Your task to perform on an android device: Go to display settings Image 0: 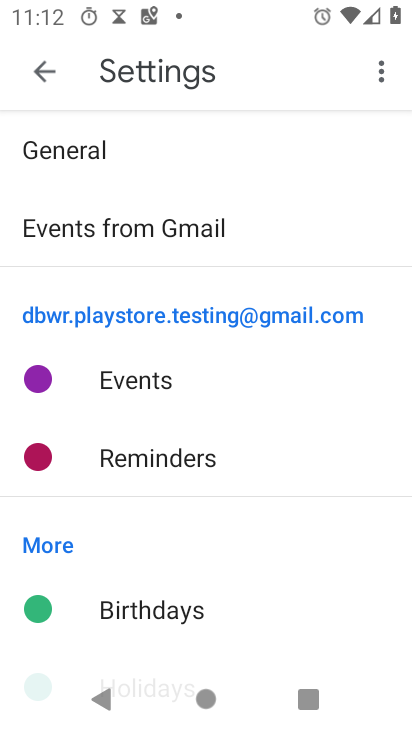
Step 0: press home button
Your task to perform on an android device: Go to display settings Image 1: 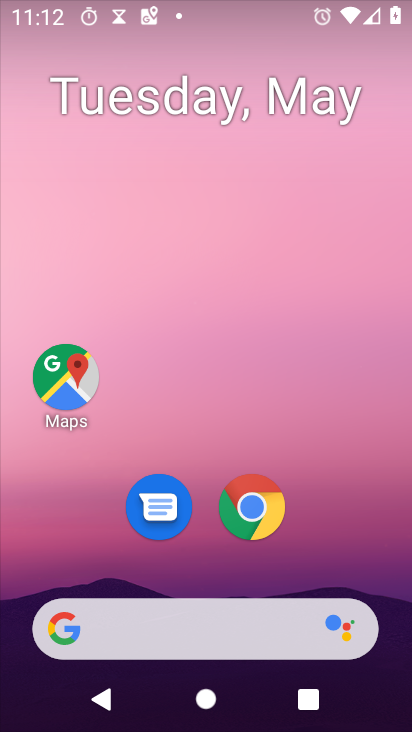
Step 1: drag from (48, 562) to (298, 231)
Your task to perform on an android device: Go to display settings Image 2: 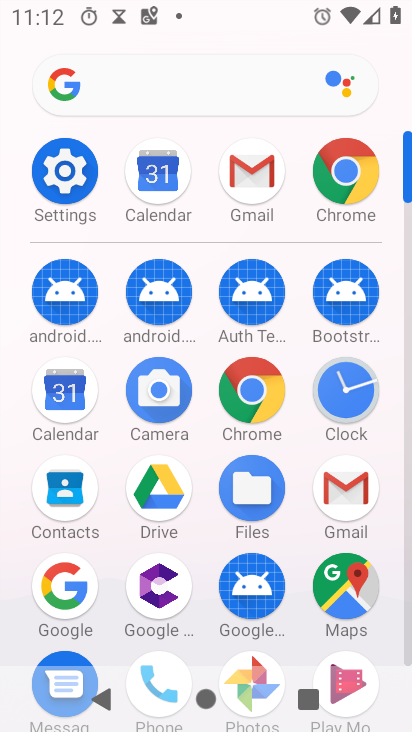
Step 2: click (59, 170)
Your task to perform on an android device: Go to display settings Image 3: 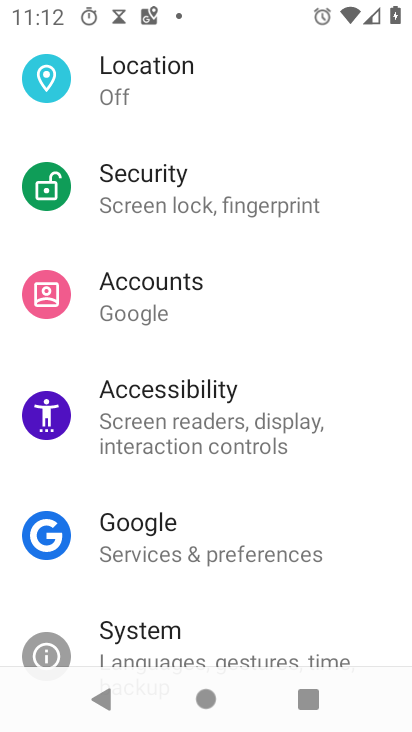
Step 3: drag from (200, 128) to (30, 543)
Your task to perform on an android device: Go to display settings Image 4: 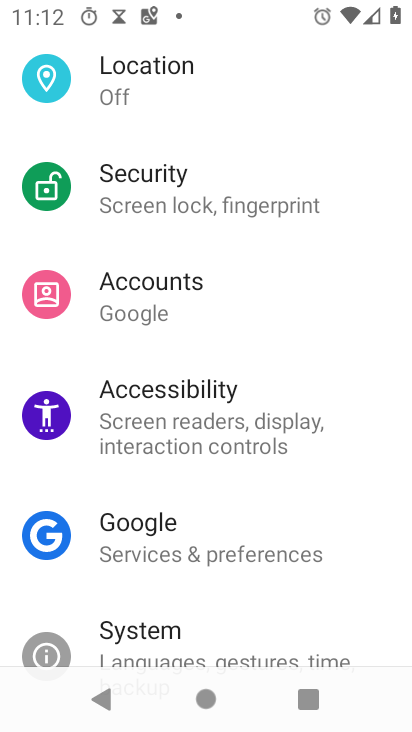
Step 4: drag from (234, 245) to (289, 158)
Your task to perform on an android device: Go to display settings Image 5: 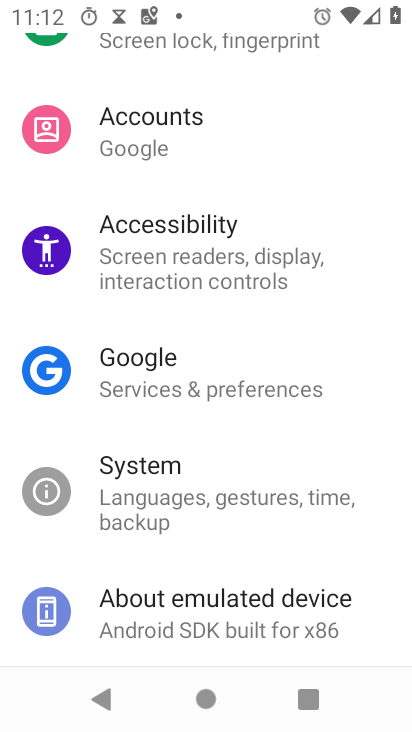
Step 5: drag from (130, 186) to (406, 123)
Your task to perform on an android device: Go to display settings Image 6: 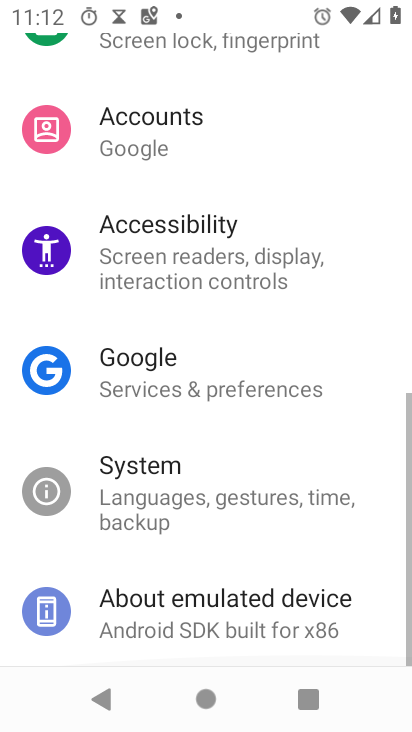
Step 6: drag from (314, 195) to (263, 570)
Your task to perform on an android device: Go to display settings Image 7: 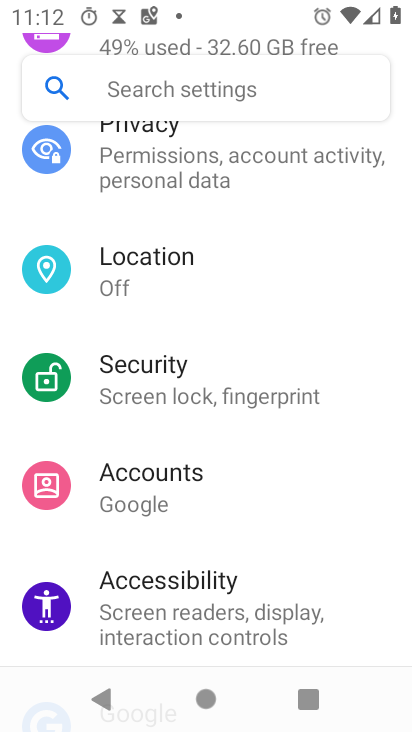
Step 7: drag from (319, 171) to (197, 581)
Your task to perform on an android device: Go to display settings Image 8: 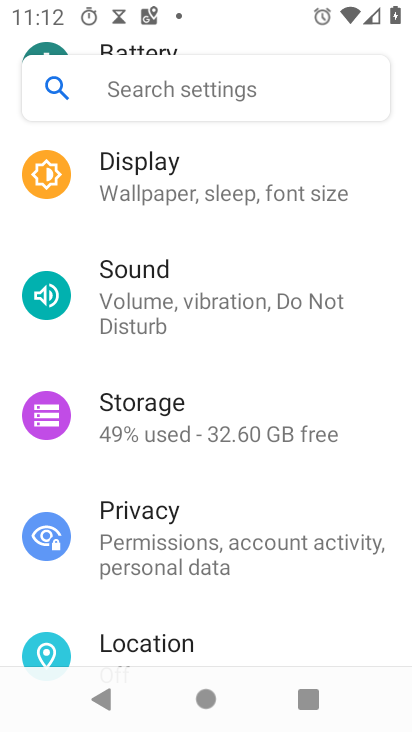
Step 8: drag from (317, 173) to (228, 440)
Your task to perform on an android device: Go to display settings Image 9: 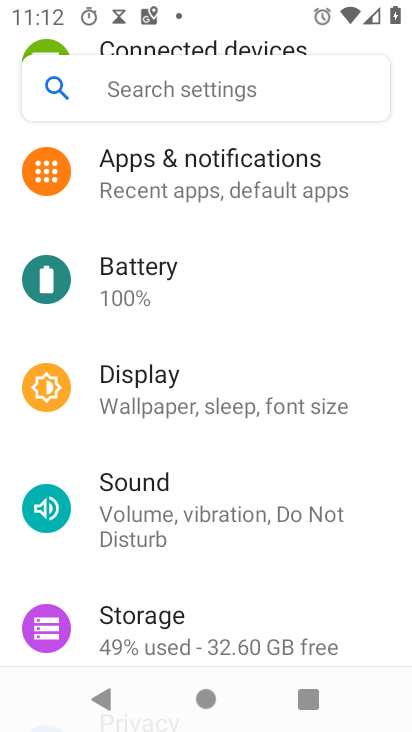
Step 9: click (249, 389)
Your task to perform on an android device: Go to display settings Image 10: 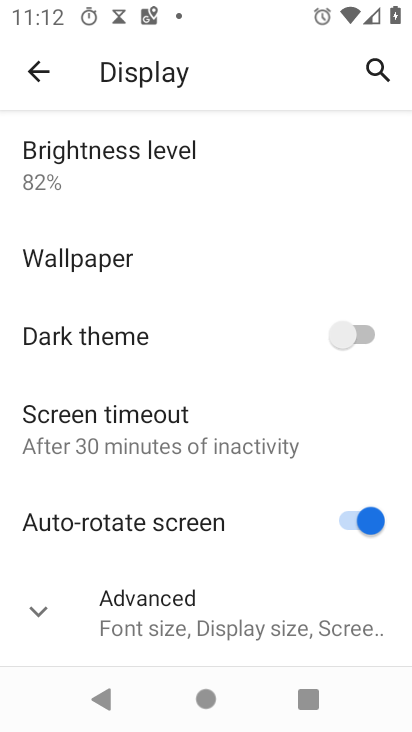
Step 10: task complete